Your task to perform on an android device: open chrome privacy settings Image 0: 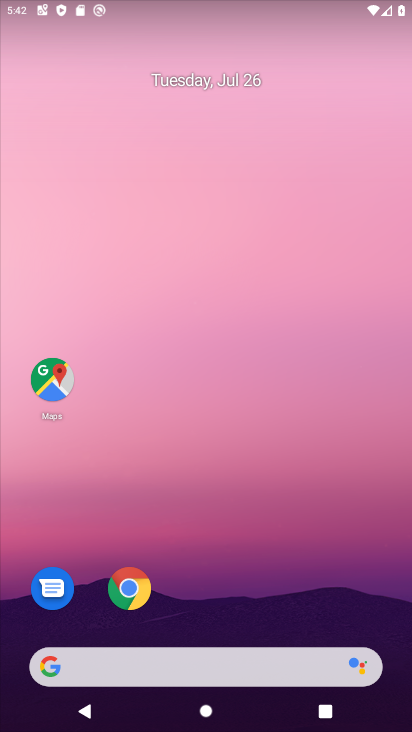
Step 0: drag from (230, 608) to (256, 27)
Your task to perform on an android device: open chrome privacy settings Image 1: 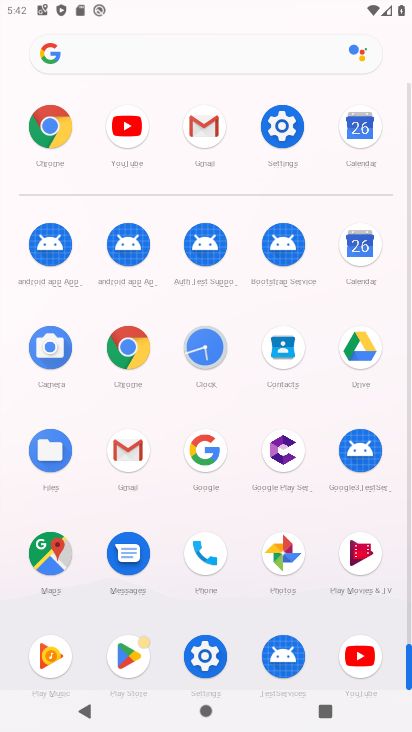
Step 1: drag from (221, 495) to (307, 90)
Your task to perform on an android device: open chrome privacy settings Image 2: 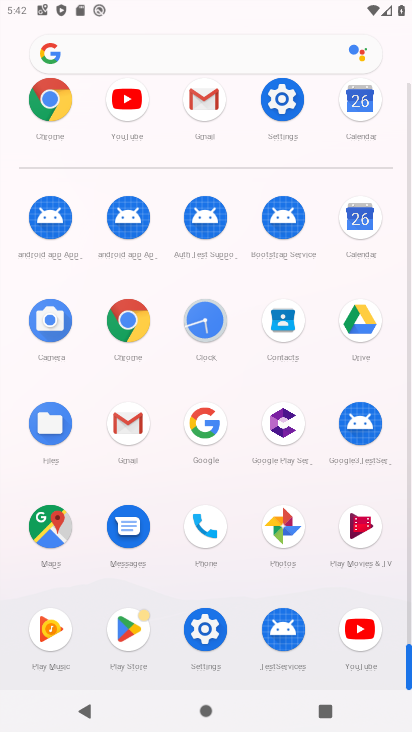
Step 2: click (138, 331)
Your task to perform on an android device: open chrome privacy settings Image 3: 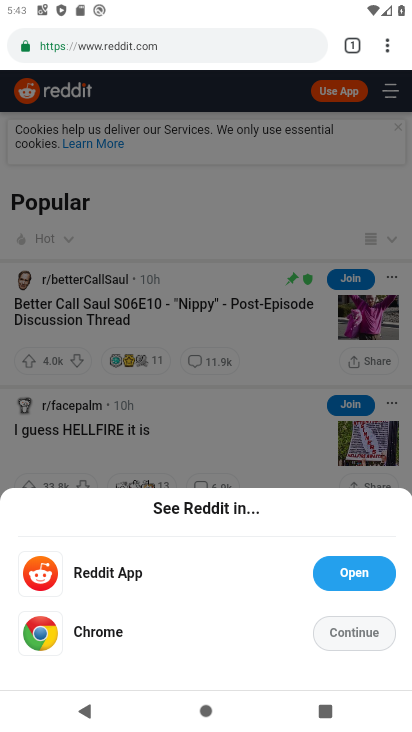
Step 3: click (387, 47)
Your task to perform on an android device: open chrome privacy settings Image 4: 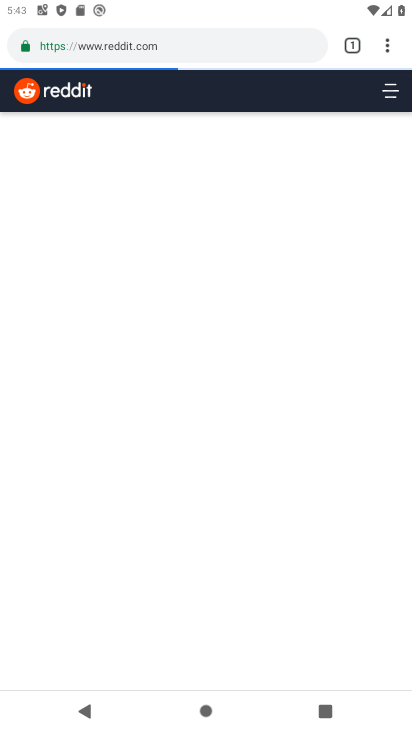
Step 4: click (390, 48)
Your task to perform on an android device: open chrome privacy settings Image 5: 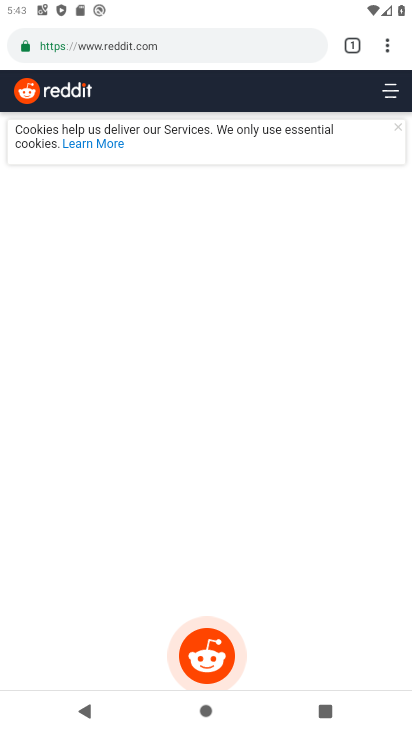
Step 5: click (388, 47)
Your task to perform on an android device: open chrome privacy settings Image 6: 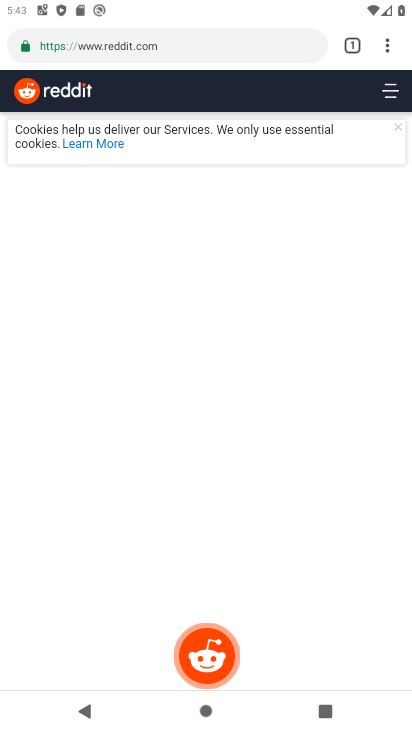
Step 6: click (390, 56)
Your task to perform on an android device: open chrome privacy settings Image 7: 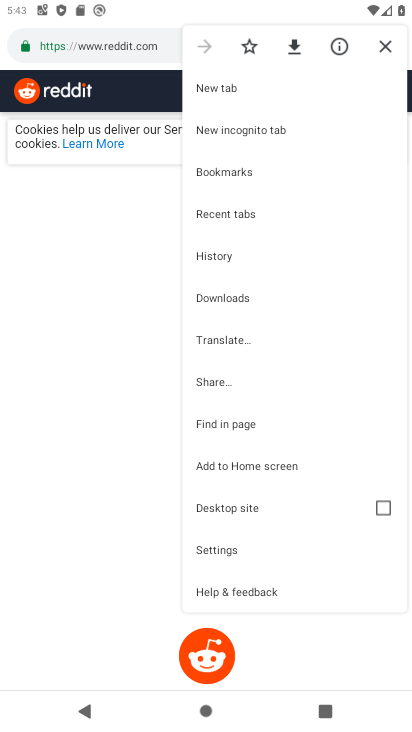
Step 7: click (240, 549)
Your task to perform on an android device: open chrome privacy settings Image 8: 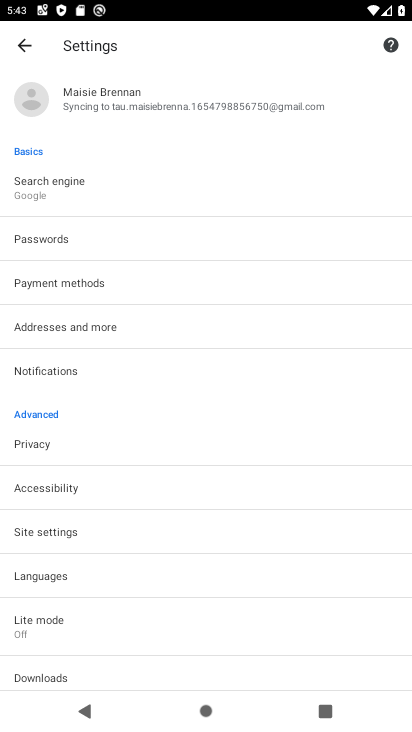
Step 8: click (35, 449)
Your task to perform on an android device: open chrome privacy settings Image 9: 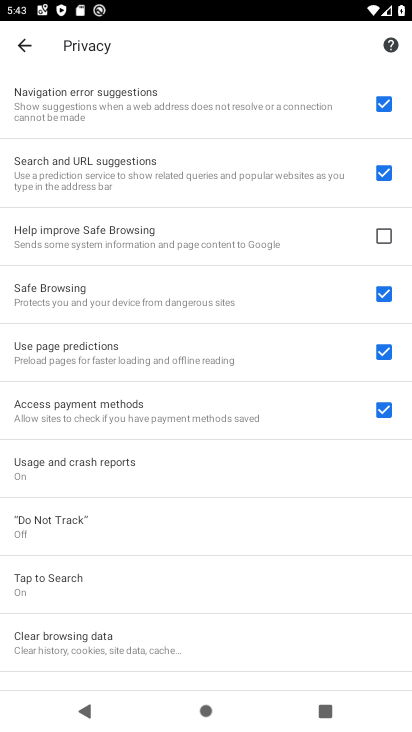
Step 9: task complete